Your task to perform on an android device: open app "Google Translate" (install if not already installed) Image 0: 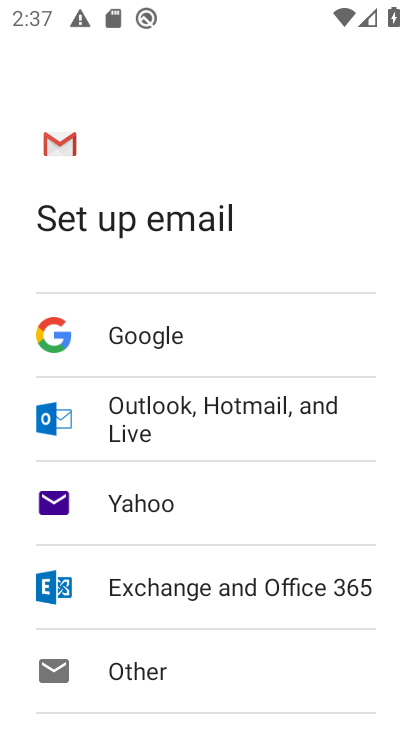
Step 0: press home button
Your task to perform on an android device: open app "Google Translate" (install if not already installed) Image 1: 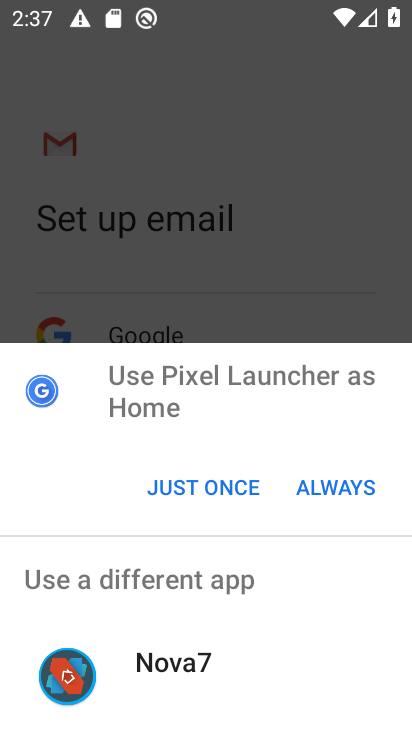
Step 1: click (243, 493)
Your task to perform on an android device: open app "Google Translate" (install if not already installed) Image 2: 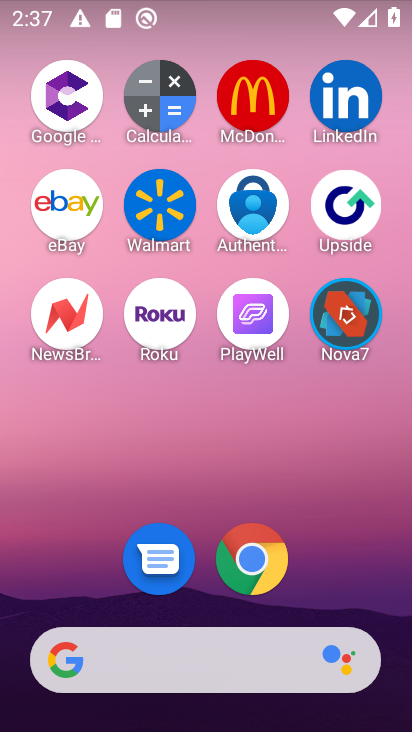
Step 2: drag from (183, 618) to (153, 219)
Your task to perform on an android device: open app "Google Translate" (install if not already installed) Image 3: 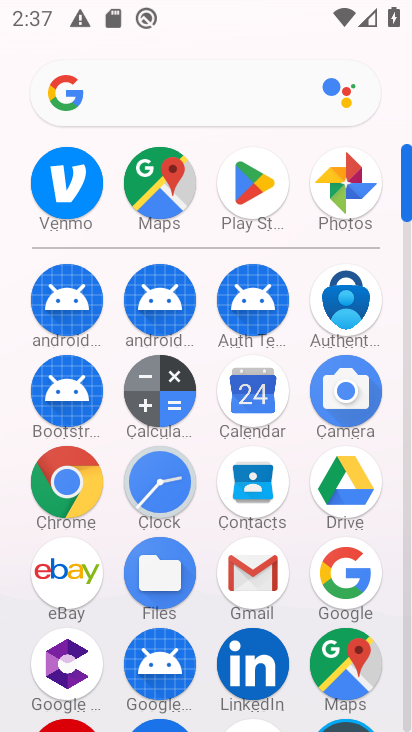
Step 3: click (254, 196)
Your task to perform on an android device: open app "Google Translate" (install if not already installed) Image 4: 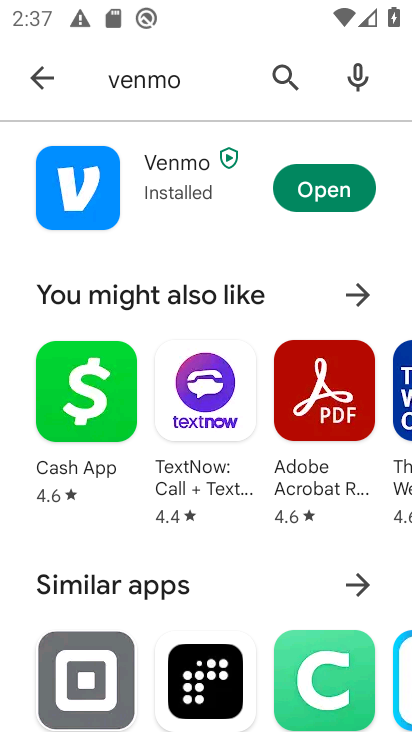
Step 4: click (286, 78)
Your task to perform on an android device: open app "Google Translate" (install if not already installed) Image 5: 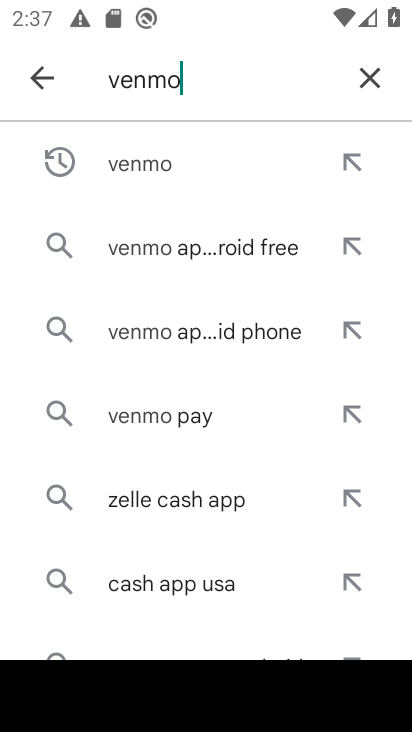
Step 5: click (373, 79)
Your task to perform on an android device: open app "Google Translate" (install if not already installed) Image 6: 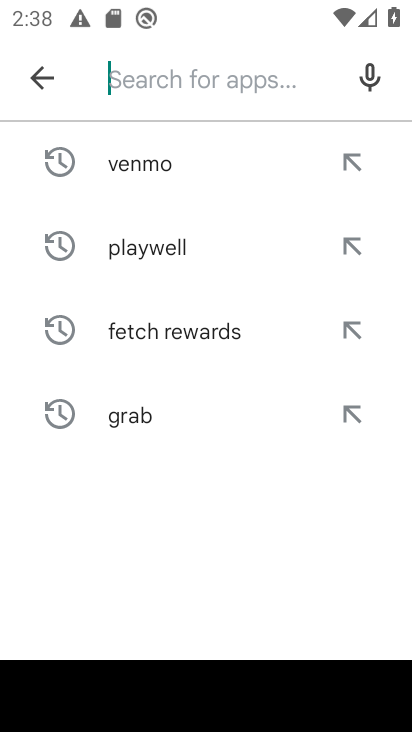
Step 6: type "Google Translate"
Your task to perform on an android device: open app "Google Translate" (install if not already installed) Image 7: 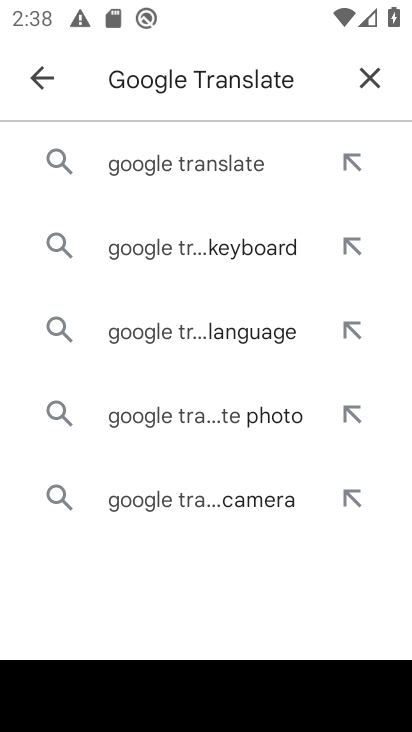
Step 7: click (149, 168)
Your task to perform on an android device: open app "Google Translate" (install if not already installed) Image 8: 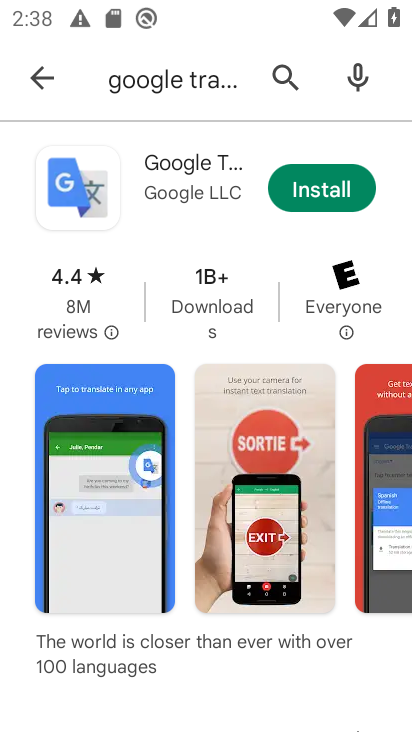
Step 8: click (297, 190)
Your task to perform on an android device: open app "Google Translate" (install if not already installed) Image 9: 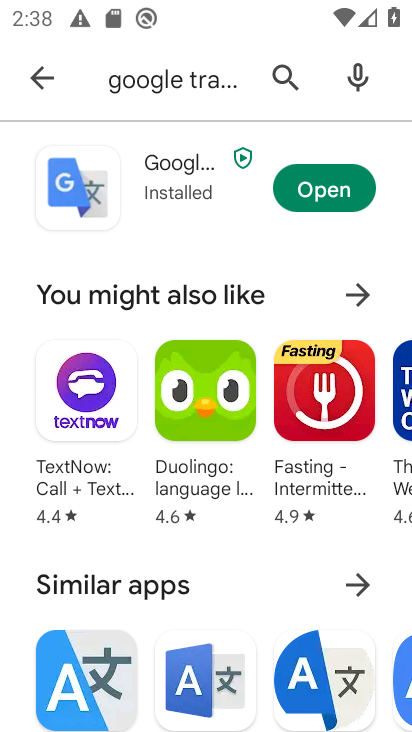
Step 9: click (302, 201)
Your task to perform on an android device: open app "Google Translate" (install if not already installed) Image 10: 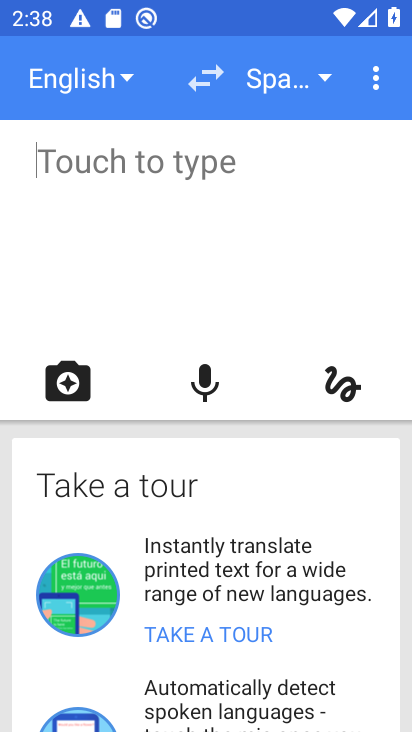
Step 10: task complete